Your task to perform on an android device: turn off data saver in the chrome app Image 0: 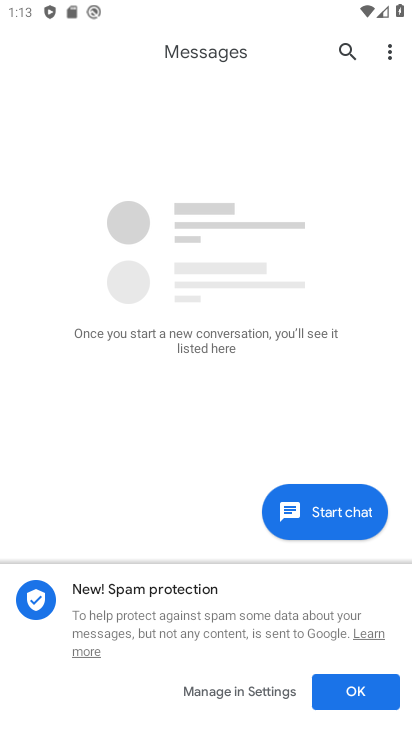
Step 0: press home button
Your task to perform on an android device: turn off data saver in the chrome app Image 1: 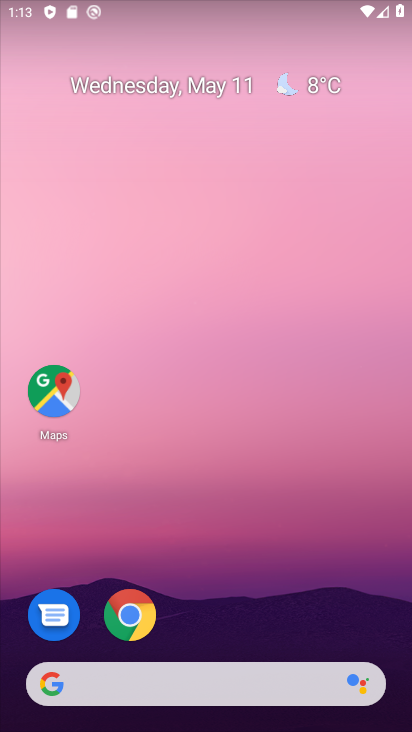
Step 1: drag from (164, 615) to (181, 70)
Your task to perform on an android device: turn off data saver in the chrome app Image 2: 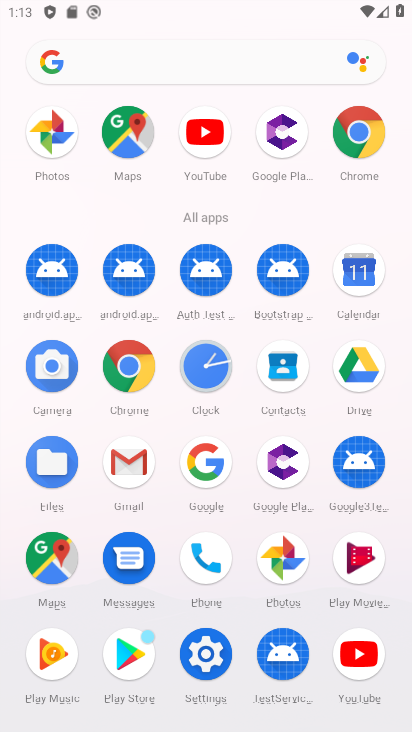
Step 2: click (356, 147)
Your task to perform on an android device: turn off data saver in the chrome app Image 3: 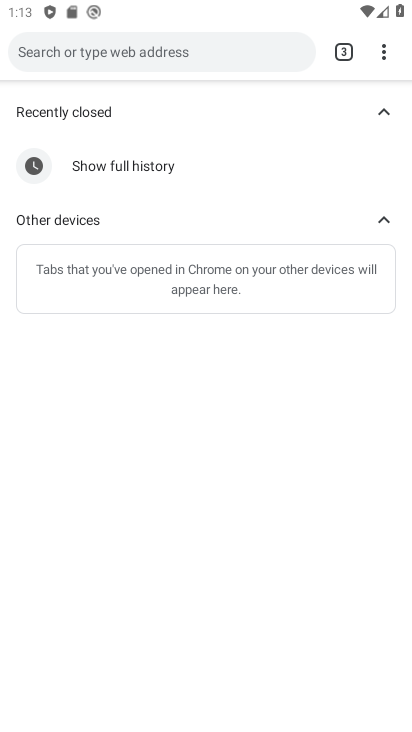
Step 3: drag from (387, 56) to (235, 424)
Your task to perform on an android device: turn off data saver in the chrome app Image 4: 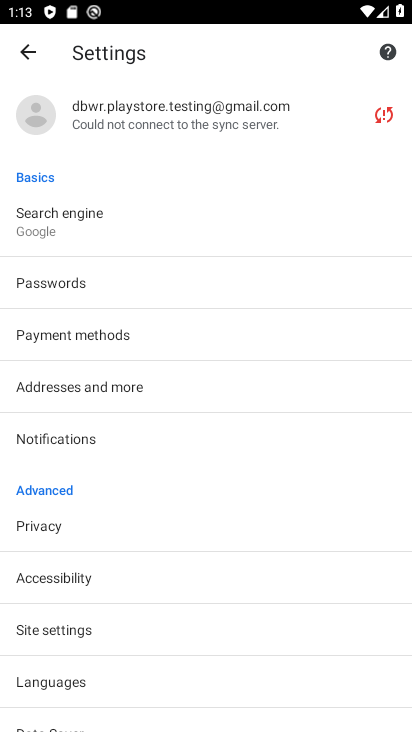
Step 4: drag from (123, 630) to (135, 265)
Your task to perform on an android device: turn off data saver in the chrome app Image 5: 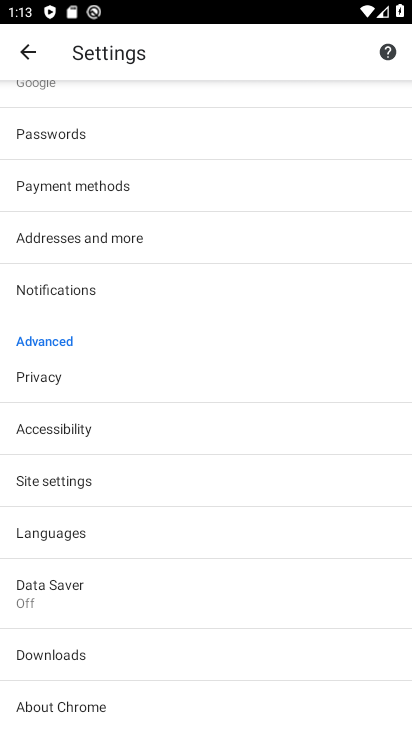
Step 5: click (77, 578)
Your task to perform on an android device: turn off data saver in the chrome app Image 6: 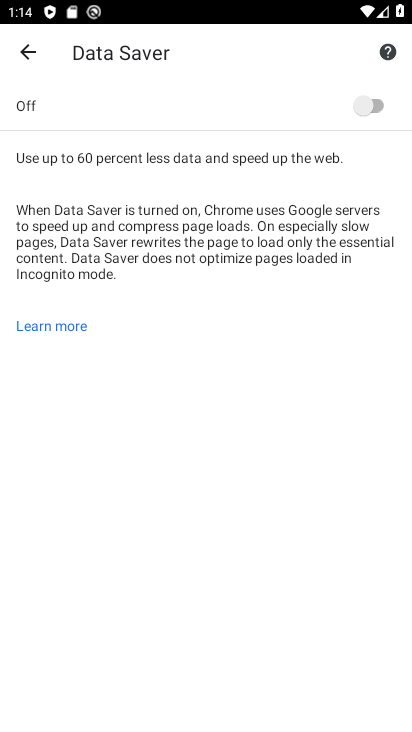
Step 6: task complete